Your task to perform on an android device: turn vacation reply on in the gmail app Image 0: 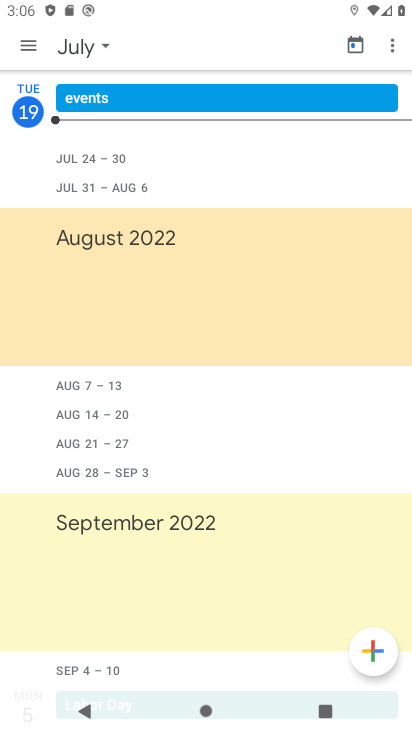
Step 0: press home button
Your task to perform on an android device: turn vacation reply on in the gmail app Image 1: 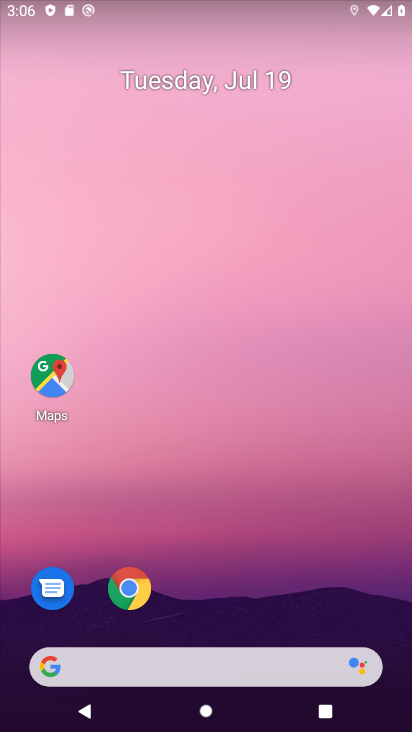
Step 1: drag from (220, 535) to (206, 159)
Your task to perform on an android device: turn vacation reply on in the gmail app Image 2: 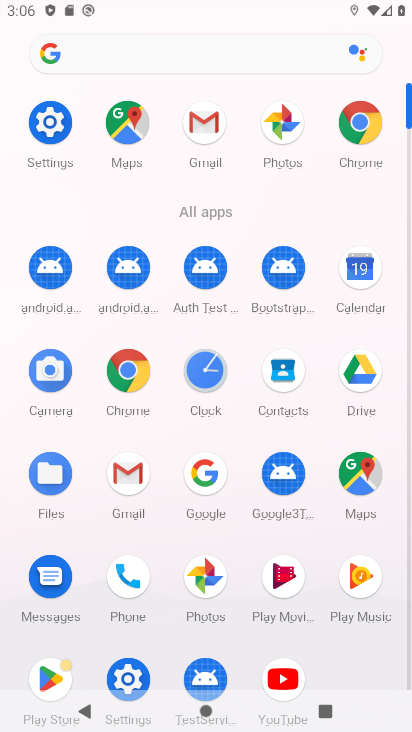
Step 2: click (194, 125)
Your task to perform on an android device: turn vacation reply on in the gmail app Image 3: 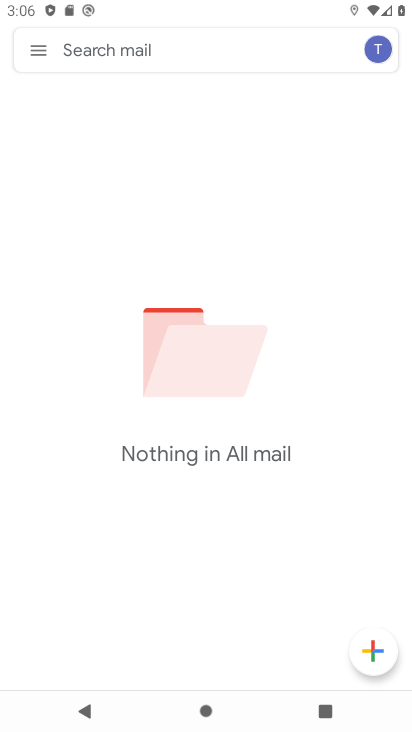
Step 3: click (34, 48)
Your task to perform on an android device: turn vacation reply on in the gmail app Image 4: 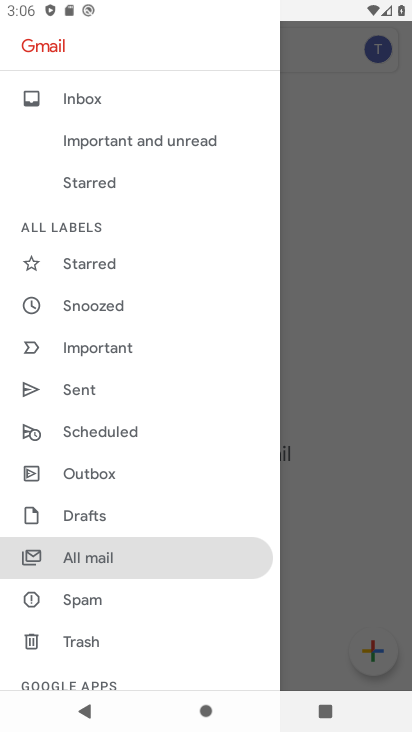
Step 4: drag from (136, 658) to (155, 263)
Your task to perform on an android device: turn vacation reply on in the gmail app Image 5: 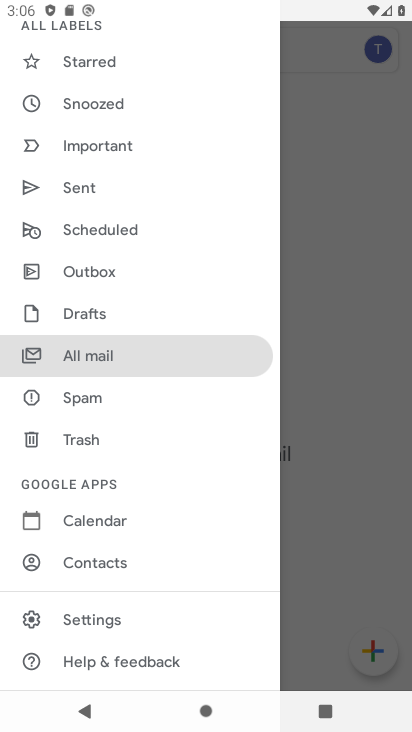
Step 5: click (92, 615)
Your task to perform on an android device: turn vacation reply on in the gmail app Image 6: 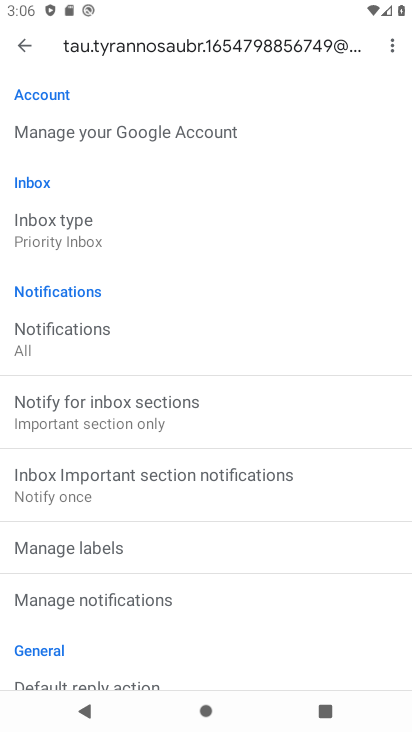
Step 6: drag from (207, 593) to (222, 111)
Your task to perform on an android device: turn vacation reply on in the gmail app Image 7: 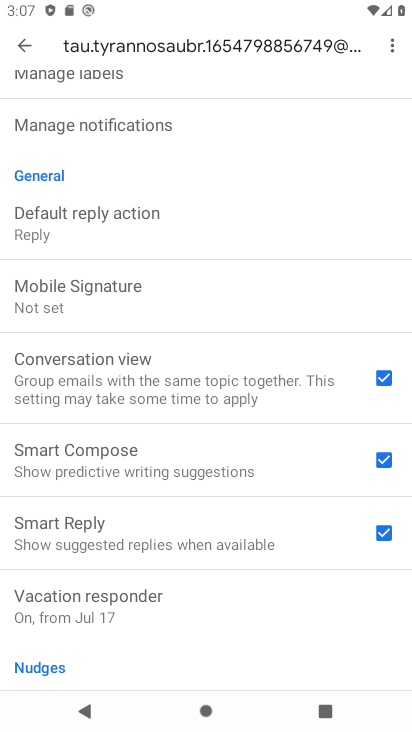
Step 7: click (128, 589)
Your task to perform on an android device: turn vacation reply on in the gmail app Image 8: 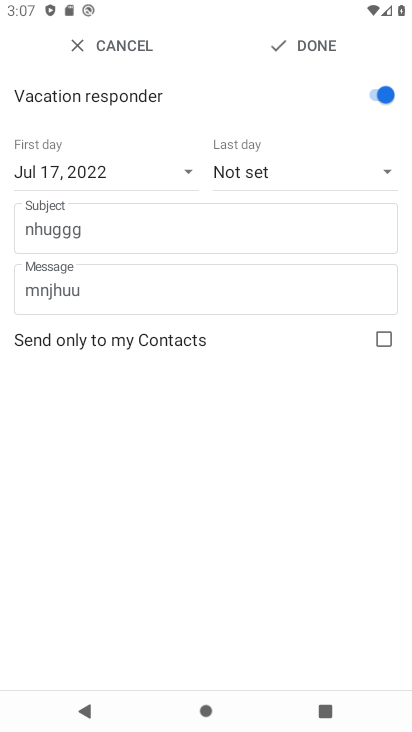
Step 8: task complete